Your task to perform on an android device: uninstall "Google Play Music" Image 0: 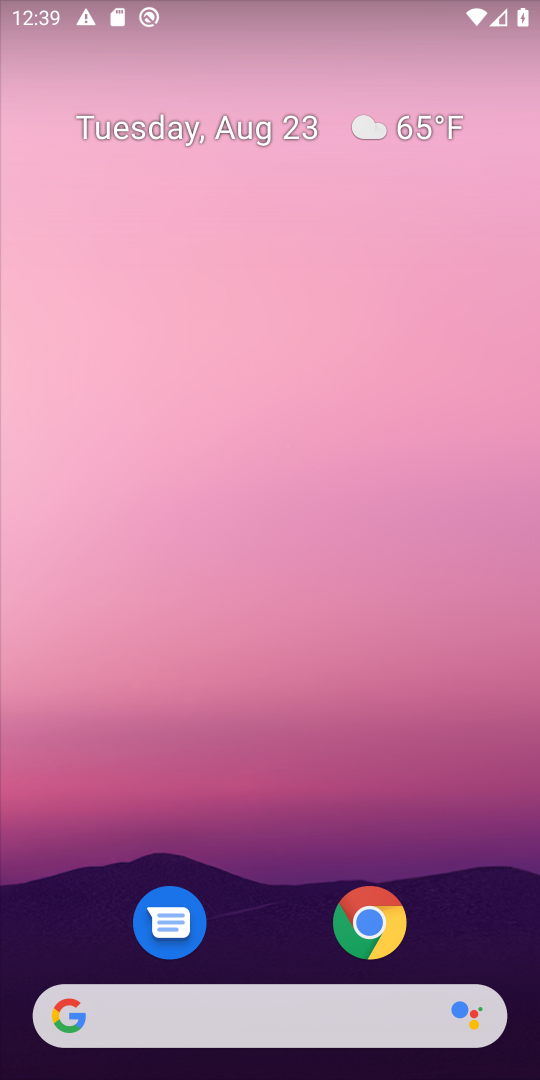
Step 0: drag from (259, 842) to (244, 227)
Your task to perform on an android device: uninstall "Google Play Music" Image 1: 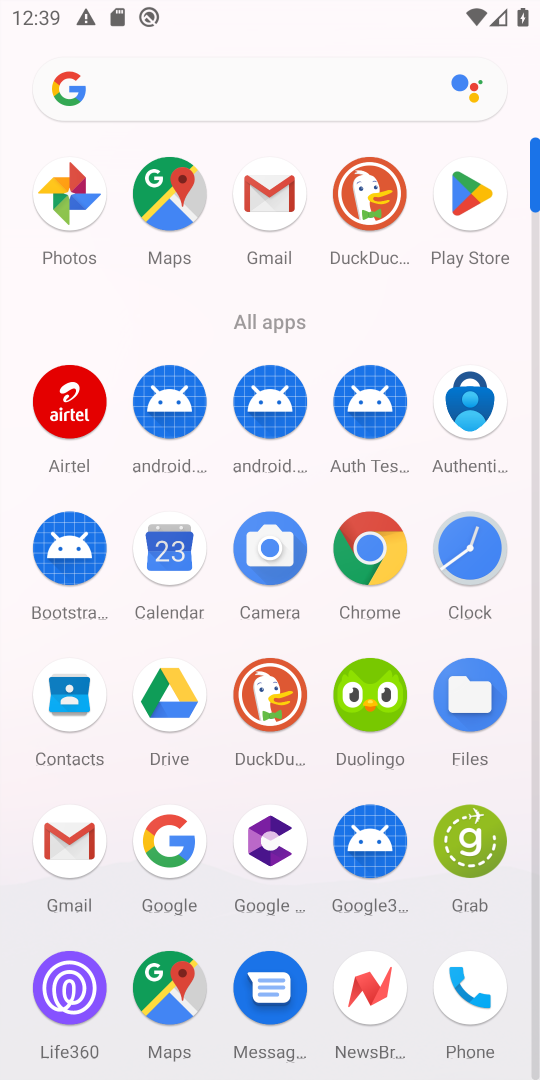
Step 1: click (481, 210)
Your task to perform on an android device: uninstall "Google Play Music" Image 2: 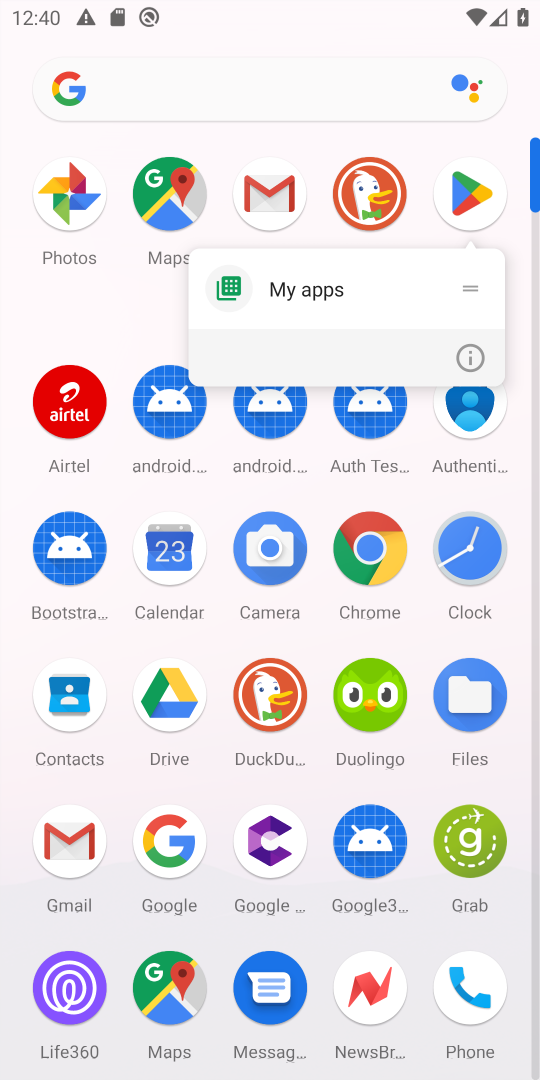
Step 2: click (470, 217)
Your task to perform on an android device: uninstall "Google Play Music" Image 3: 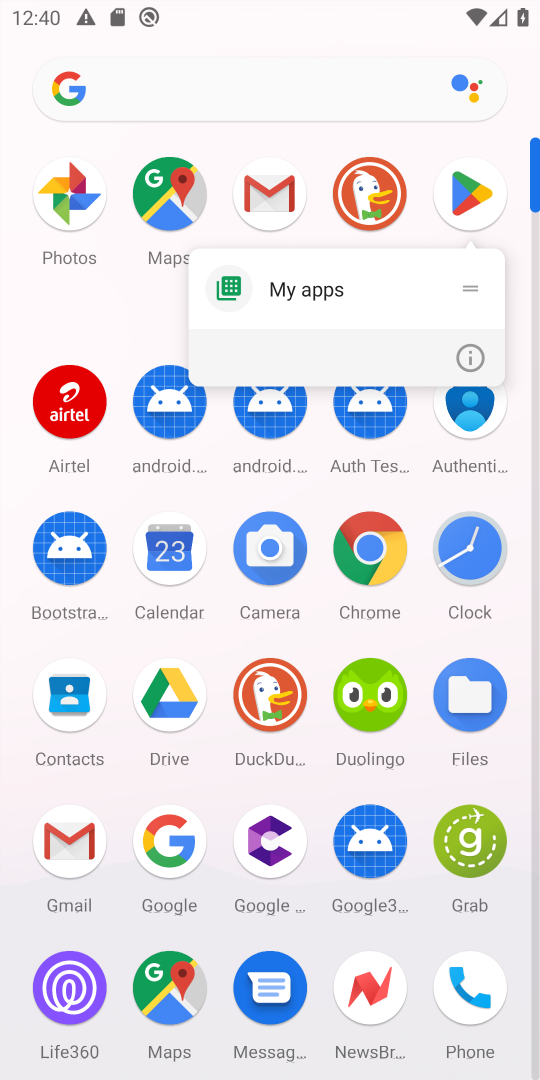
Step 3: click (467, 211)
Your task to perform on an android device: uninstall "Google Play Music" Image 4: 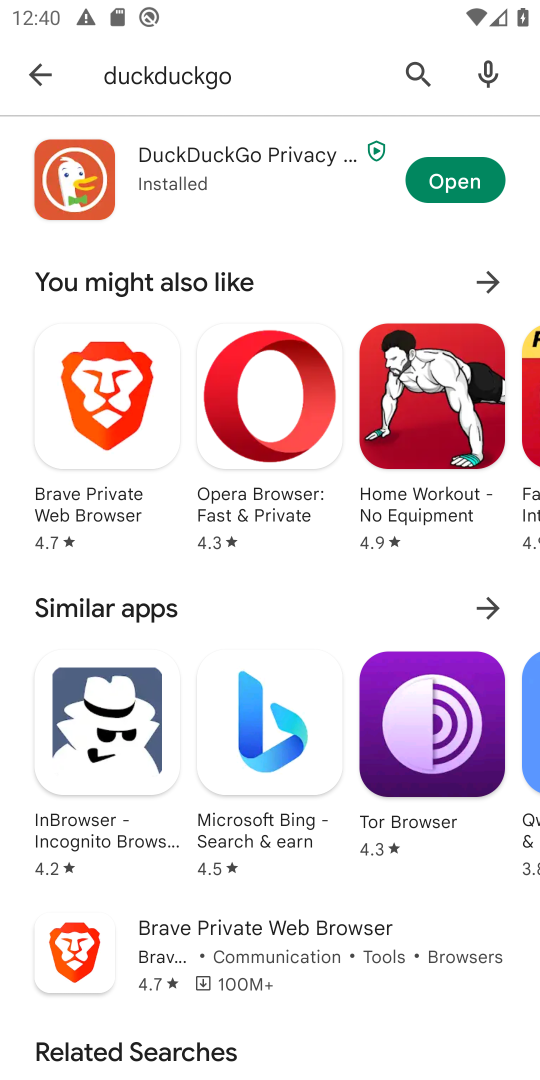
Step 4: click (256, 74)
Your task to perform on an android device: uninstall "Google Play Music" Image 5: 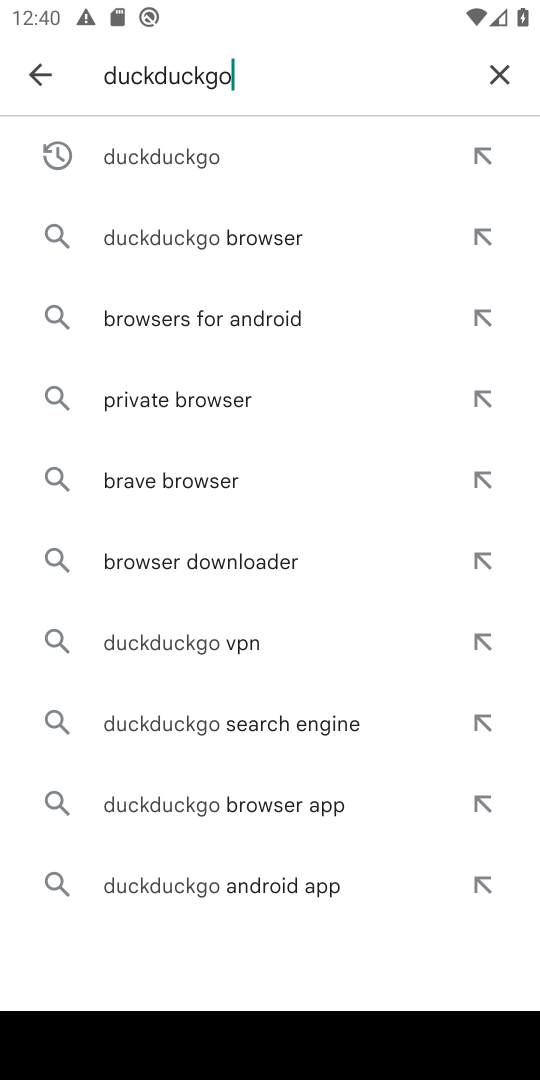
Step 5: click (499, 67)
Your task to perform on an android device: uninstall "Google Play Music" Image 6: 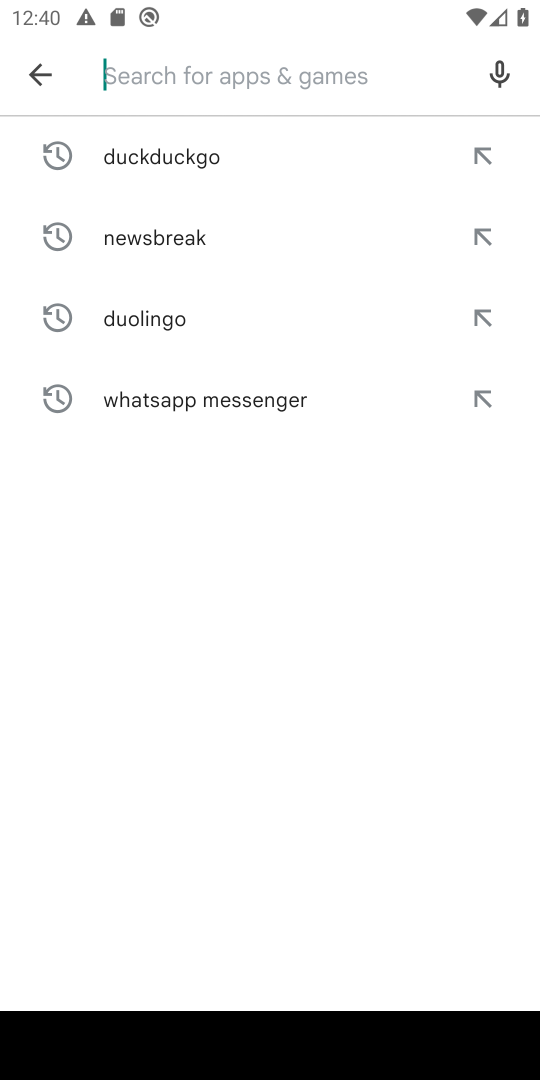
Step 6: type "google play music"
Your task to perform on an android device: uninstall "Google Play Music" Image 7: 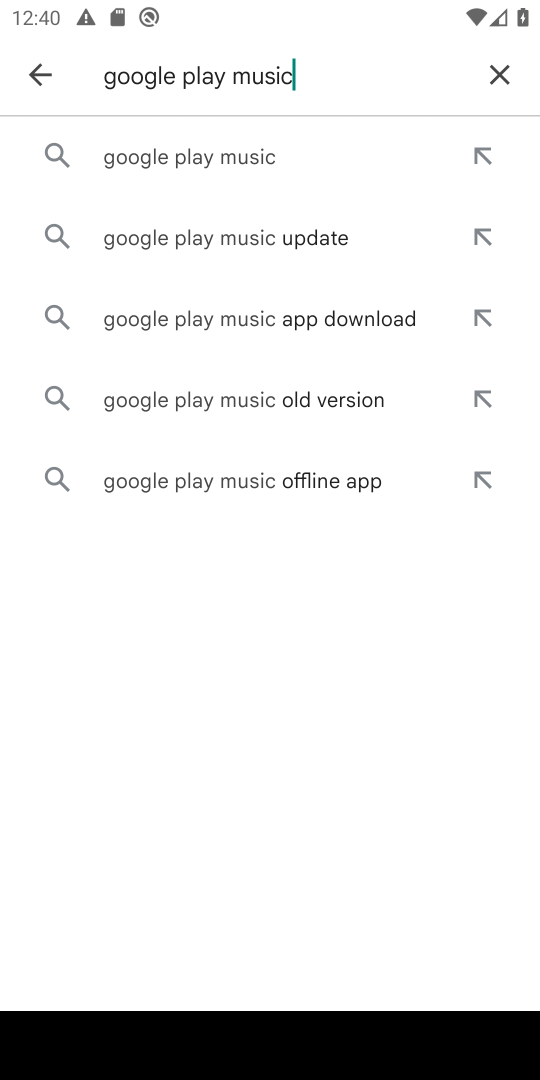
Step 7: click (179, 181)
Your task to perform on an android device: uninstall "Google Play Music" Image 8: 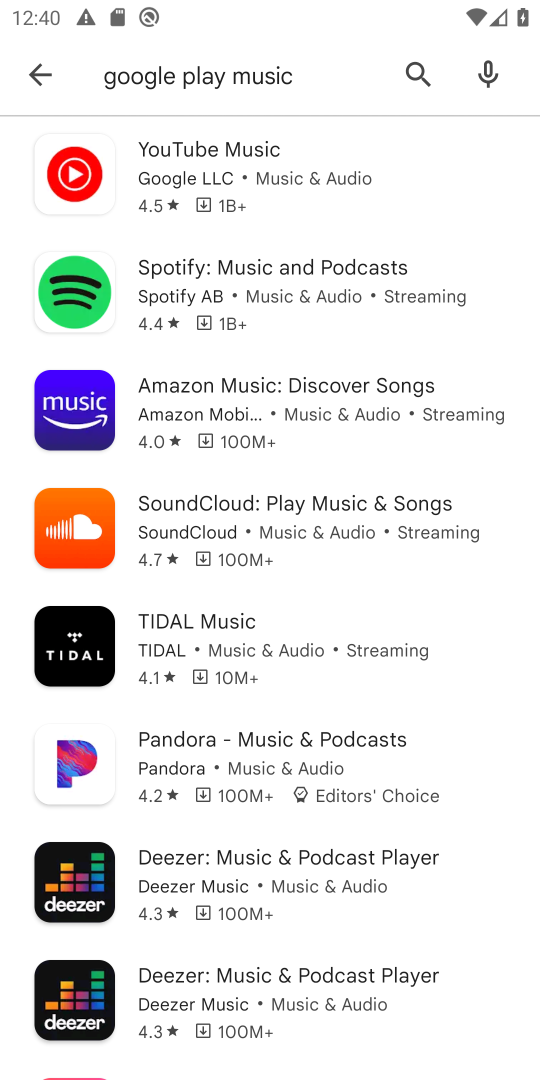
Step 8: task complete